Your task to perform on an android device: toggle wifi Image 0: 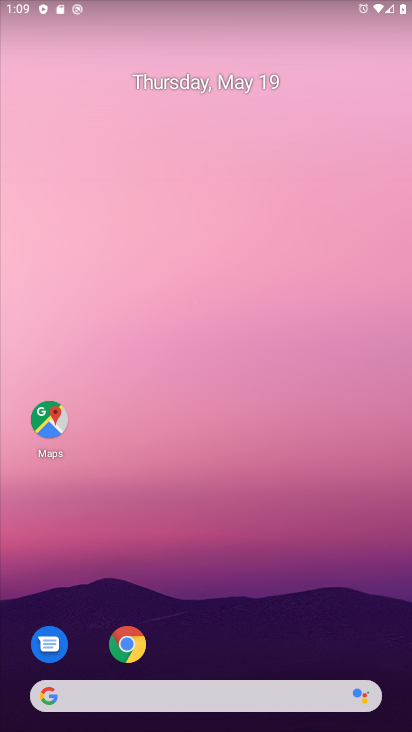
Step 0: drag from (317, 697) to (166, 197)
Your task to perform on an android device: toggle wifi Image 1: 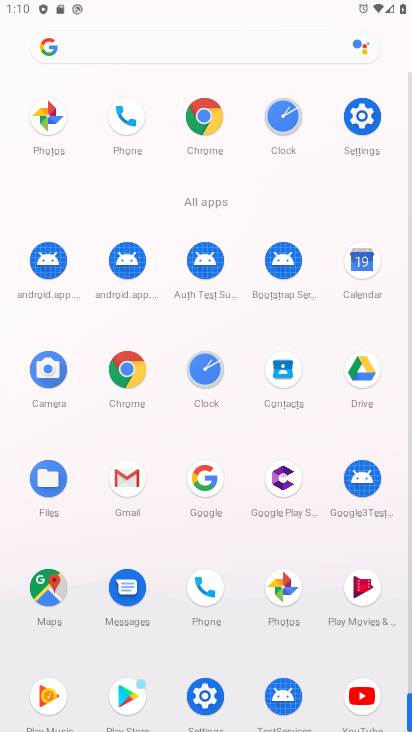
Step 1: click (358, 113)
Your task to perform on an android device: toggle wifi Image 2: 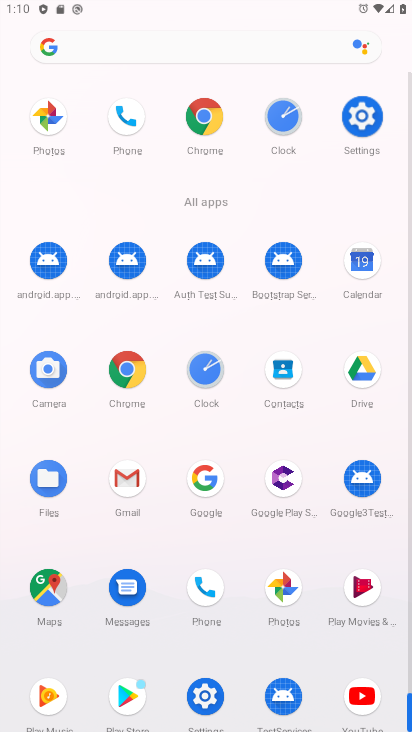
Step 2: click (359, 114)
Your task to perform on an android device: toggle wifi Image 3: 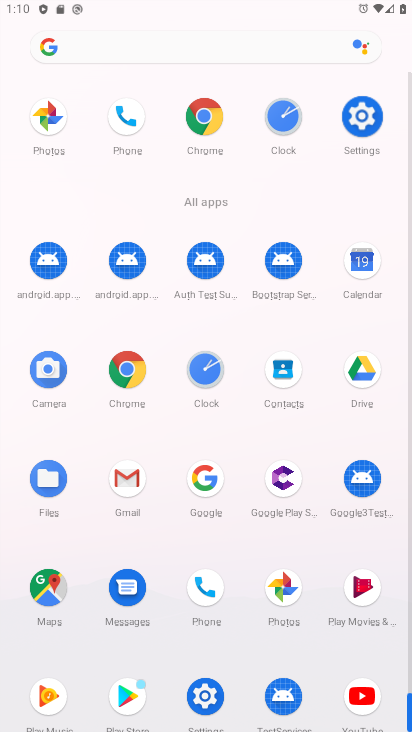
Step 3: click (359, 114)
Your task to perform on an android device: toggle wifi Image 4: 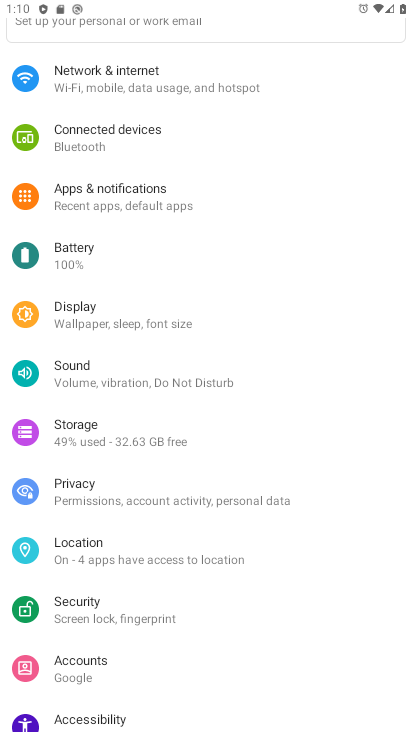
Step 4: drag from (95, 157) to (143, 500)
Your task to perform on an android device: toggle wifi Image 5: 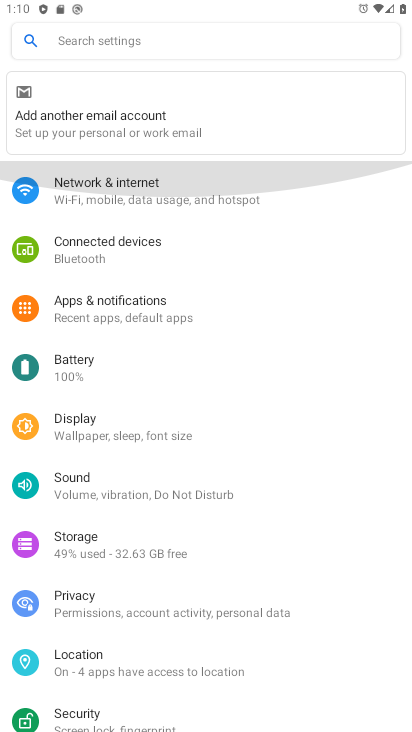
Step 5: drag from (94, 172) to (210, 516)
Your task to perform on an android device: toggle wifi Image 6: 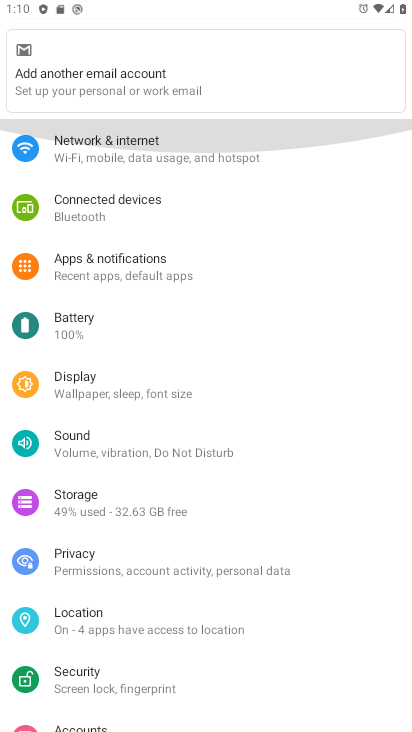
Step 6: drag from (115, 175) to (175, 521)
Your task to perform on an android device: toggle wifi Image 7: 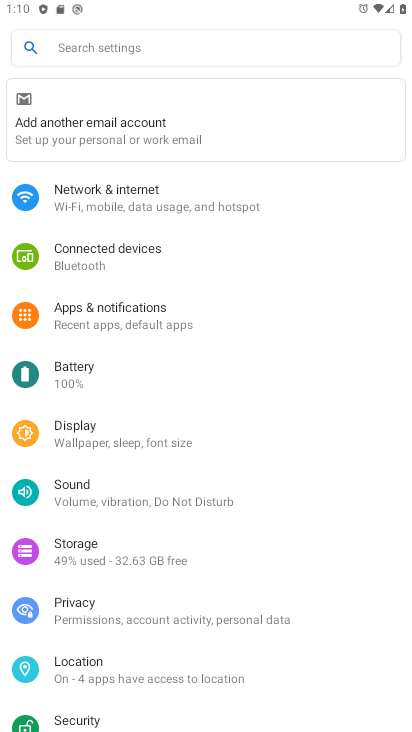
Step 7: drag from (97, 246) to (173, 463)
Your task to perform on an android device: toggle wifi Image 8: 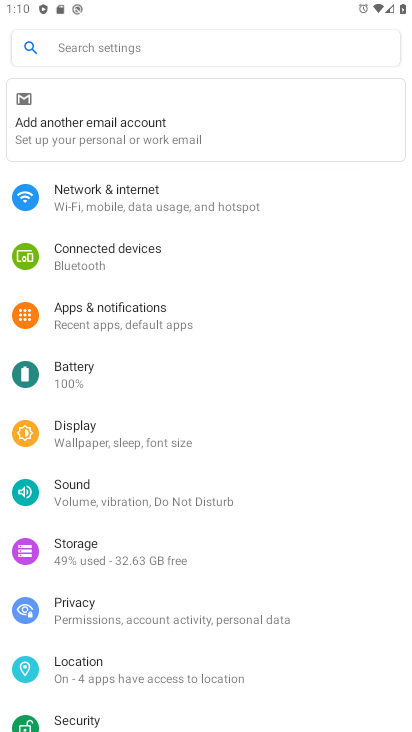
Step 8: drag from (135, 247) to (201, 529)
Your task to perform on an android device: toggle wifi Image 9: 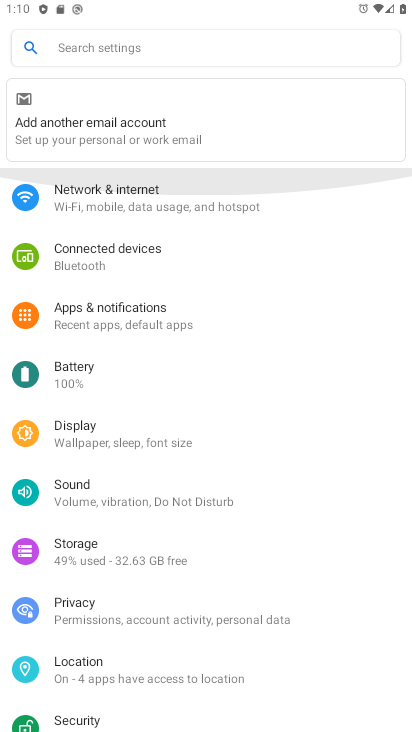
Step 9: drag from (114, 254) to (171, 576)
Your task to perform on an android device: toggle wifi Image 10: 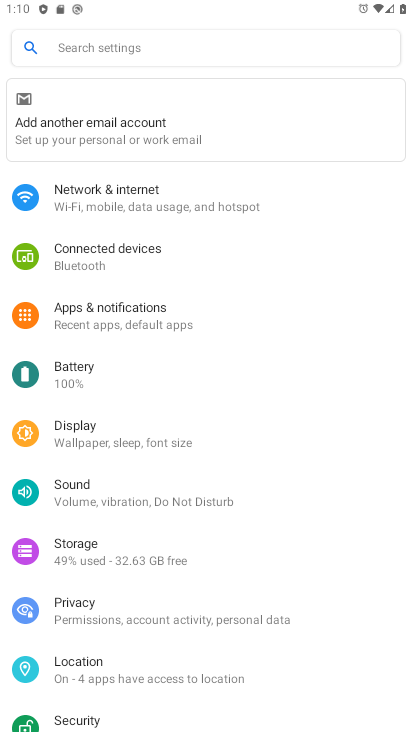
Step 10: click (243, 634)
Your task to perform on an android device: toggle wifi Image 11: 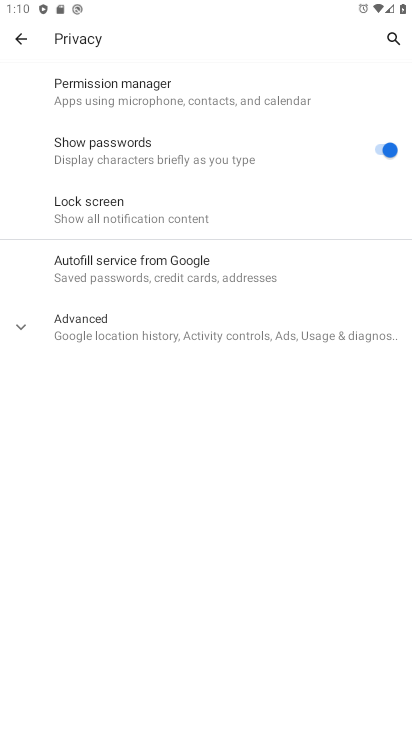
Step 11: drag from (115, 232) to (207, 541)
Your task to perform on an android device: toggle wifi Image 12: 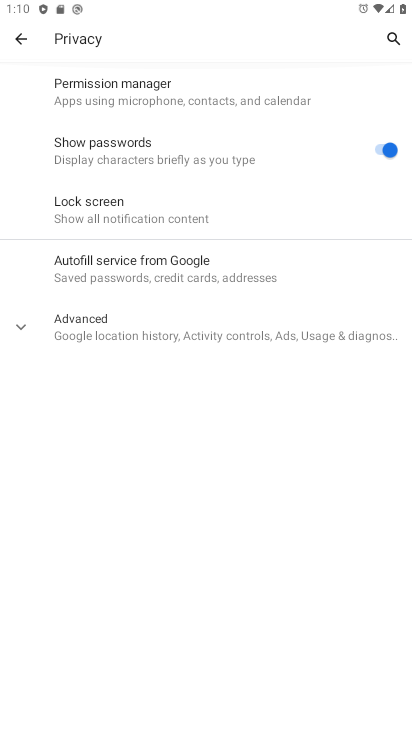
Step 12: click (25, 44)
Your task to perform on an android device: toggle wifi Image 13: 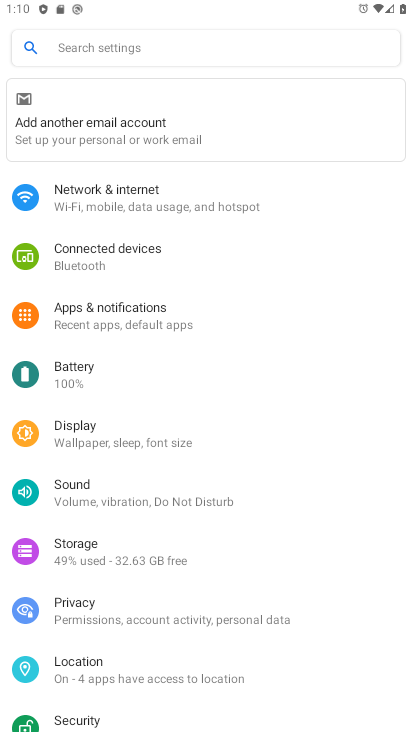
Step 13: click (109, 195)
Your task to perform on an android device: toggle wifi Image 14: 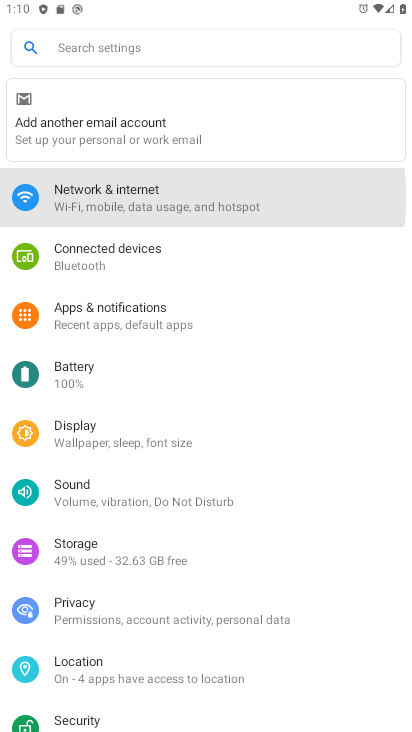
Step 14: click (111, 194)
Your task to perform on an android device: toggle wifi Image 15: 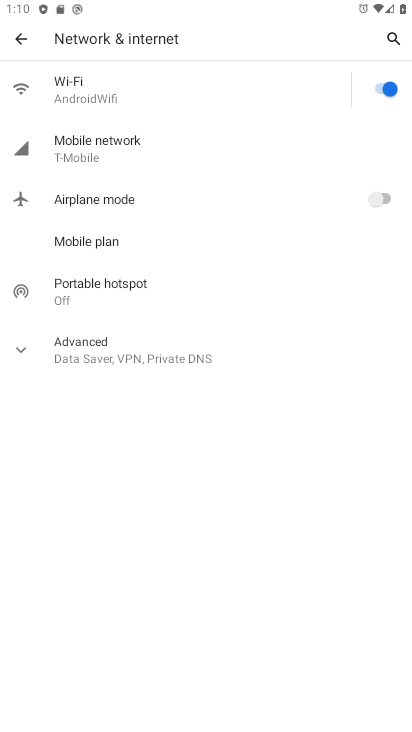
Step 15: click (9, 39)
Your task to perform on an android device: toggle wifi Image 16: 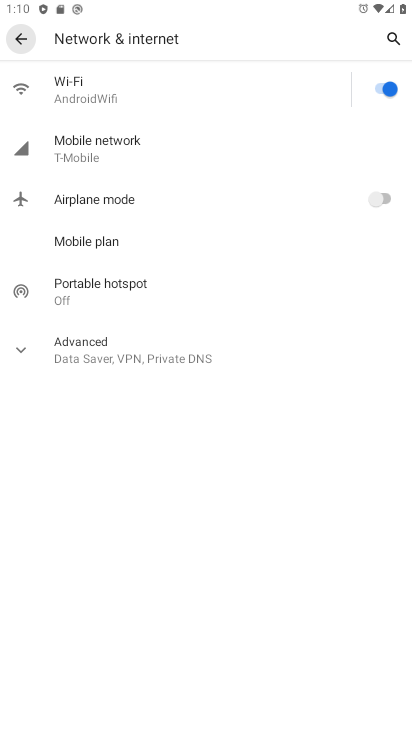
Step 16: click (11, 39)
Your task to perform on an android device: toggle wifi Image 17: 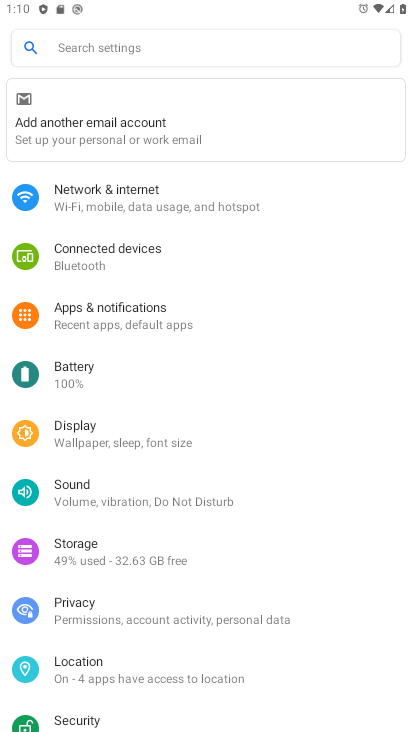
Step 17: task complete